Your task to perform on an android device: Search for apple airpods pro on amazon, select the first entry, add it to the cart, then select checkout. Image 0: 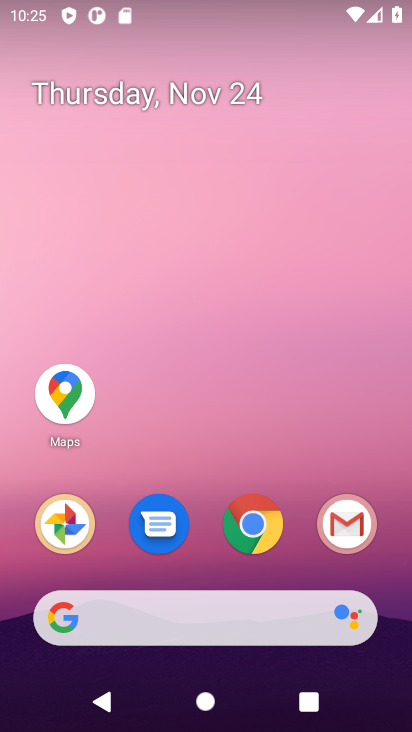
Step 0: click (254, 526)
Your task to perform on an android device: Search for apple airpods pro on amazon, select the first entry, add it to the cart, then select checkout. Image 1: 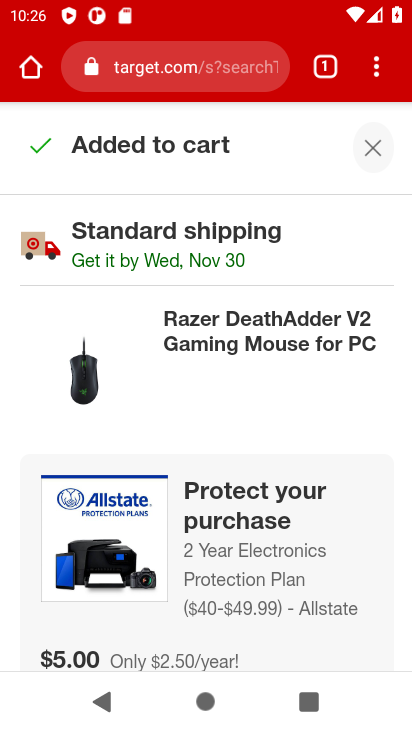
Step 1: click (152, 72)
Your task to perform on an android device: Search for apple airpods pro on amazon, select the first entry, add it to the cart, then select checkout. Image 2: 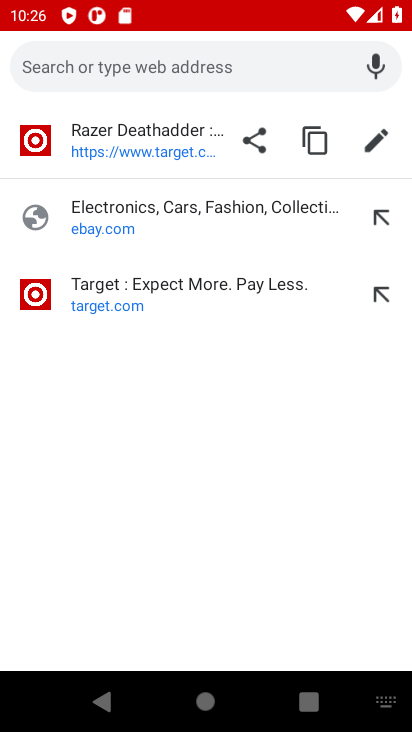
Step 2: type "amazon.com"
Your task to perform on an android device: Search for apple airpods pro on amazon, select the first entry, add it to the cart, then select checkout. Image 3: 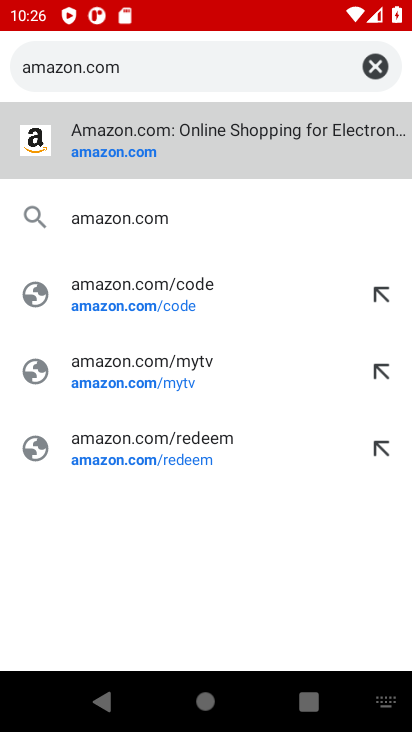
Step 3: click (117, 154)
Your task to perform on an android device: Search for apple airpods pro on amazon, select the first entry, add it to the cart, then select checkout. Image 4: 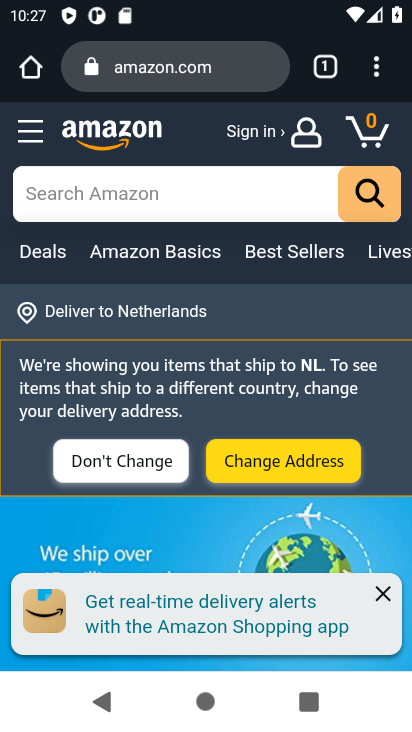
Step 4: click (56, 196)
Your task to perform on an android device: Search for apple airpods pro on amazon, select the first entry, add it to the cart, then select checkout. Image 5: 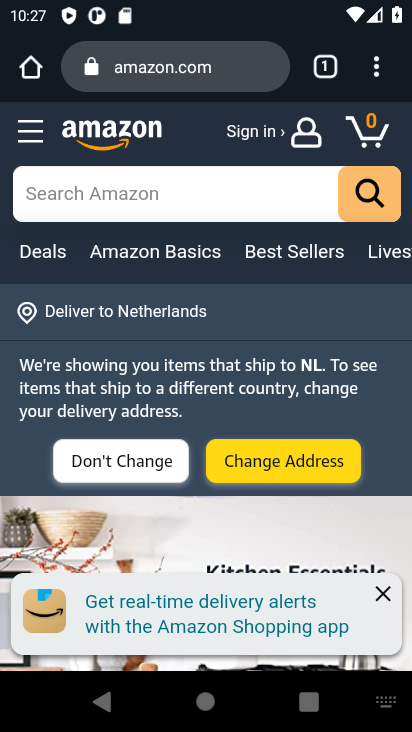
Step 5: type "apple airpods pro"
Your task to perform on an android device: Search for apple airpods pro on amazon, select the first entry, add it to the cart, then select checkout. Image 6: 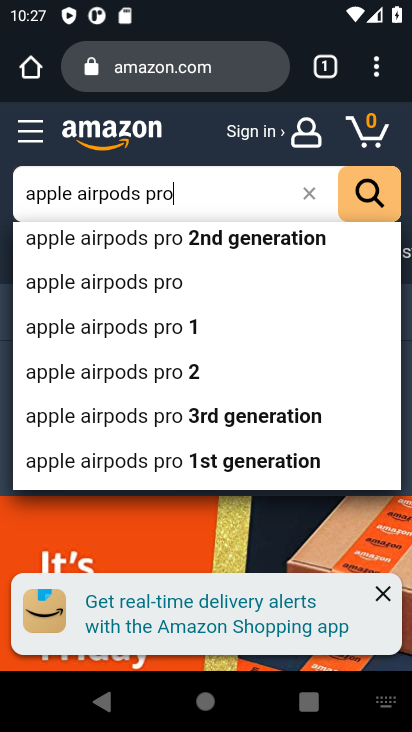
Step 6: click (82, 289)
Your task to perform on an android device: Search for apple airpods pro on amazon, select the first entry, add it to the cart, then select checkout. Image 7: 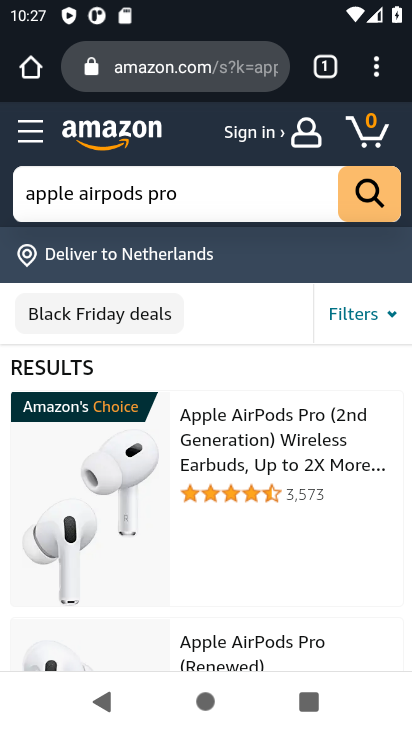
Step 7: drag from (102, 541) to (115, 377)
Your task to perform on an android device: Search for apple airpods pro on amazon, select the first entry, add it to the cart, then select checkout. Image 8: 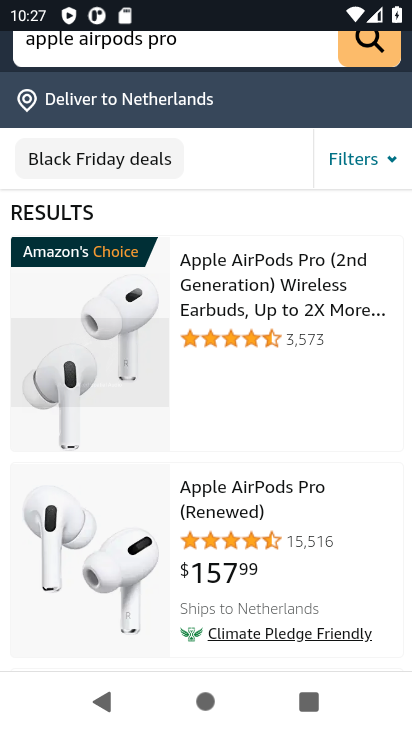
Step 8: click (97, 353)
Your task to perform on an android device: Search for apple airpods pro on amazon, select the first entry, add it to the cart, then select checkout. Image 9: 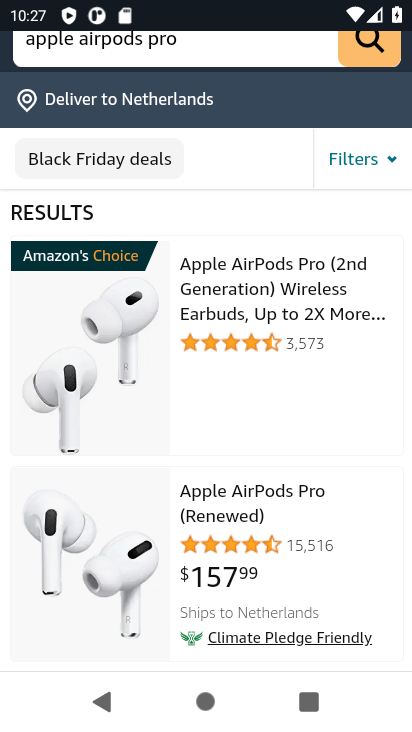
Step 9: click (248, 297)
Your task to perform on an android device: Search for apple airpods pro on amazon, select the first entry, add it to the cart, then select checkout. Image 10: 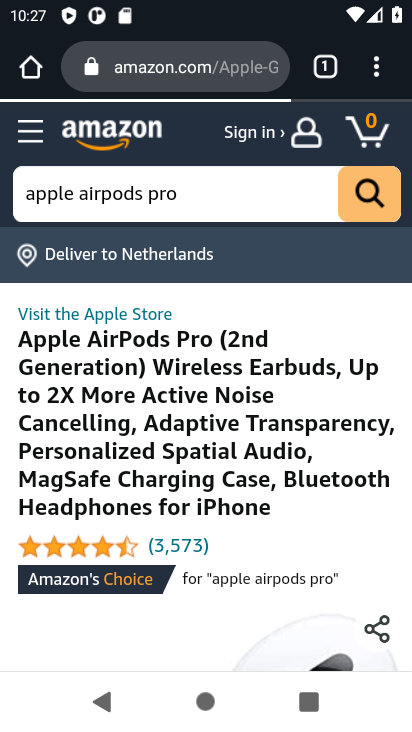
Step 10: task complete